Your task to perform on an android device: check out phone information Image 0: 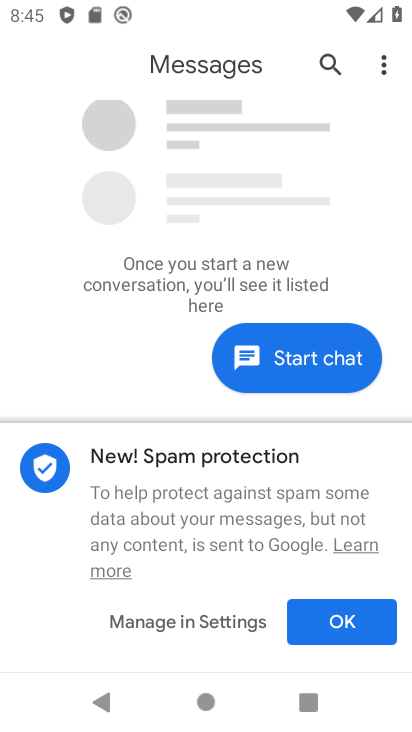
Step 0: press home button
Your task to perform on an android device: check out phone information Image 1: 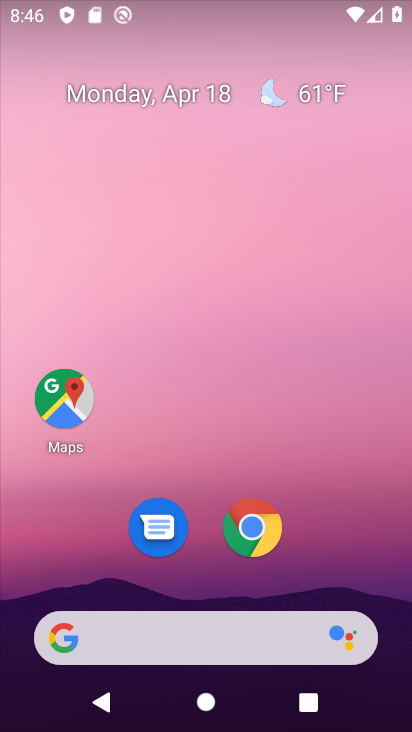
Step 1: drag from (227, 6) to (188, 540)
Your task to perform on an android device: check out phone information Image 2: 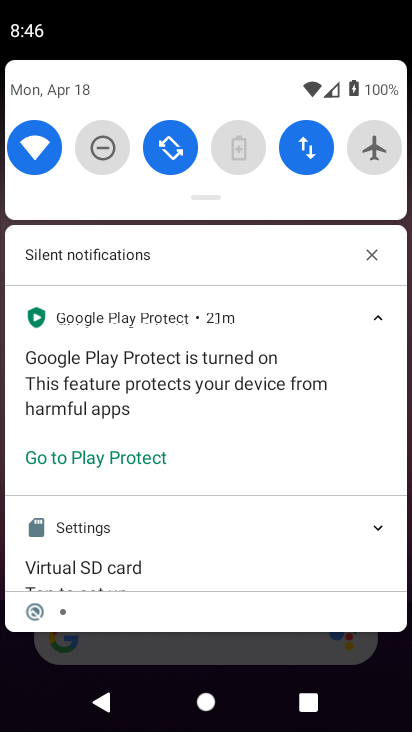
Step 2: drag from (196, 100) to (235, 566)
Your task to perform on an android device: check out phone information Image 3: 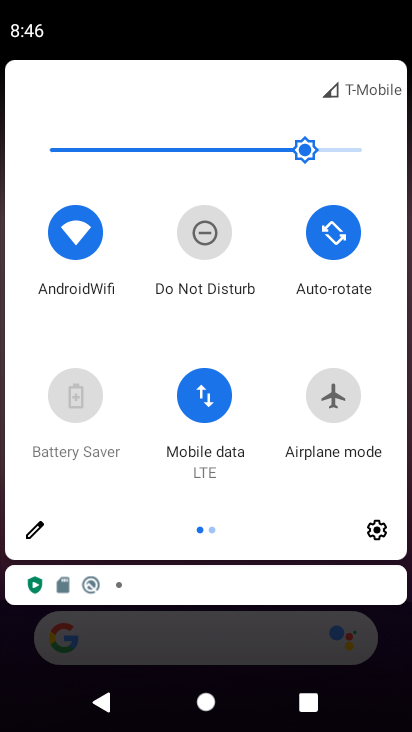
Step 3: click (383, 528)
Your task to perform on an android device: check out phone information Image 4: 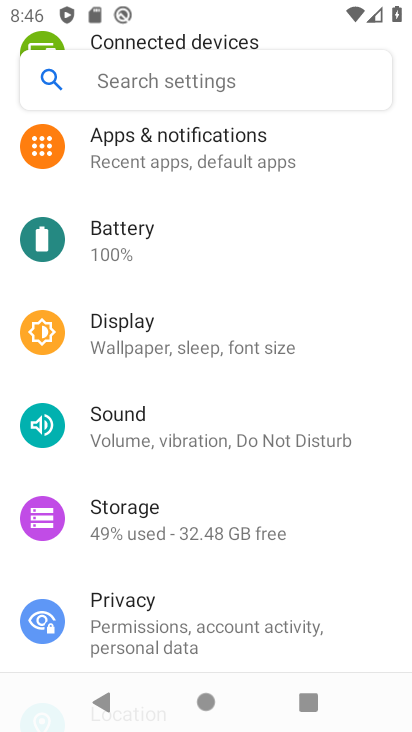
Step 4: drag from (140, 545) to (131, 273)
Your task to perform on an android device: check out phone information Image 5: 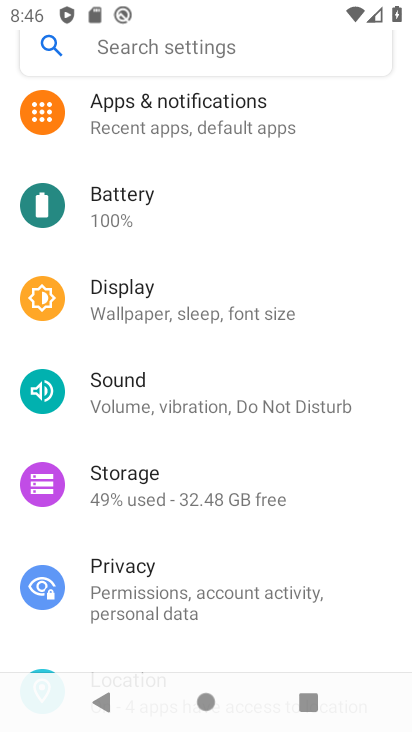
Step 5: drag from (143, 628) to (155, 119)
Your task to perform on an android device: check out phone information Image 6: 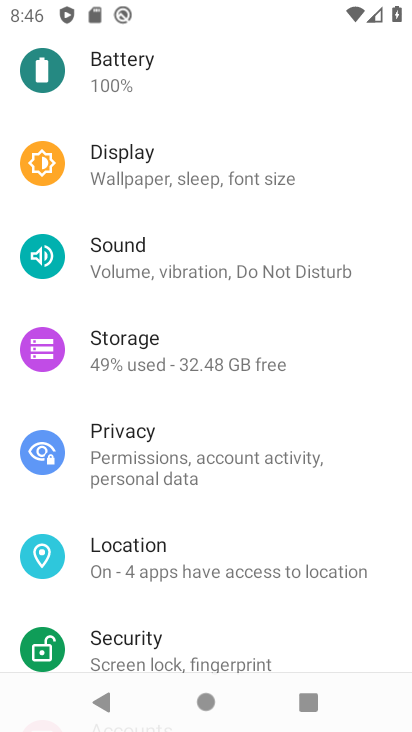
Step 6: drag from (151, 624) to (136, 207)
Your task to perform on an android device: check out phone information Image 7: 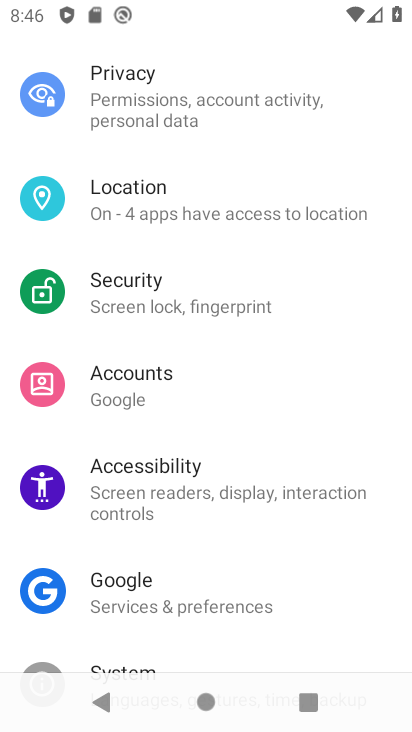
Step 7: drag from (96, 608) to (155, 88)
Your task to perform on an android device: check out phone information Image 8: 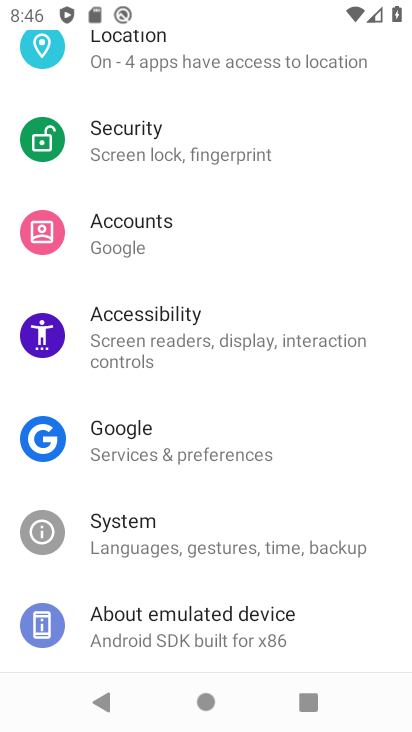
Step 8: drag from (126, 598) to (177, 269)
Your task to perform on an android device: check out phone information Image 9: 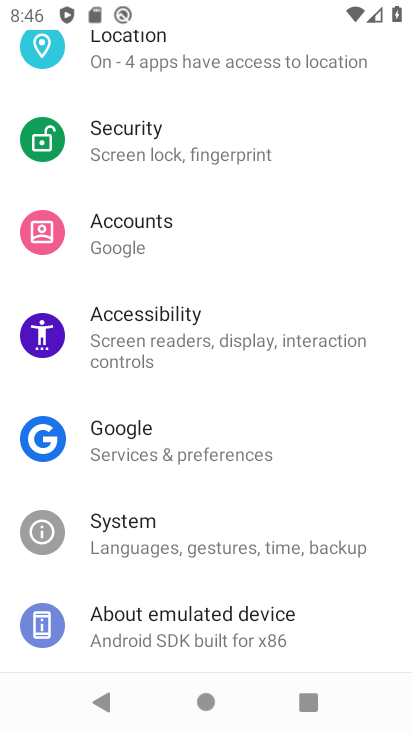
Step 9: click (130, 644)
Your task to perform on an android device: check out phone information Image 10: 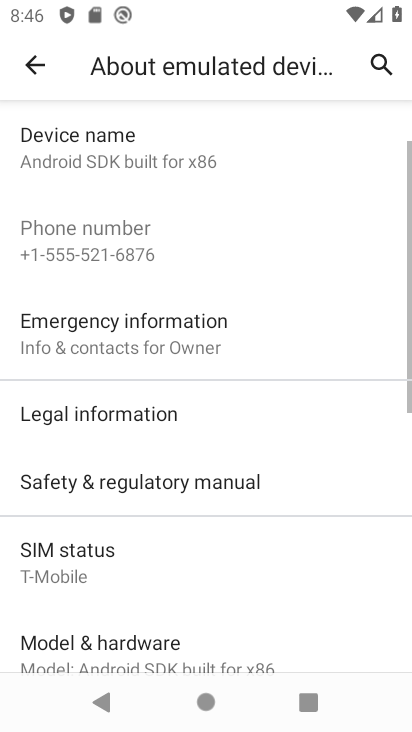
Step 10: task complete